Your task to perform on an android device: Open Google Maps and go to "Timeline" Image 0: 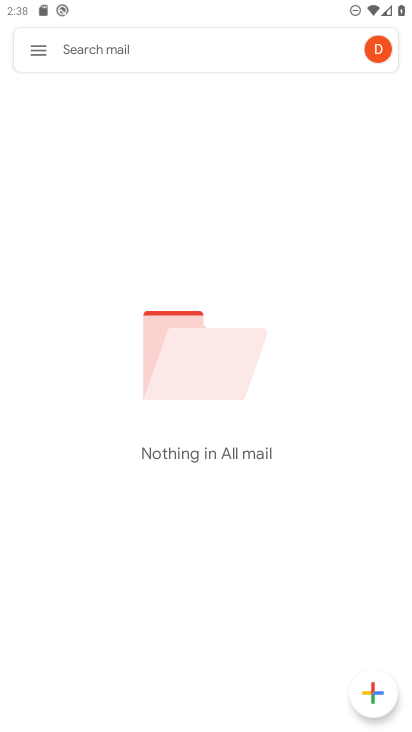
Step 0: press home button
Your task to perform on an android device: Open Google Maps and go to "Timeline" Image 1: 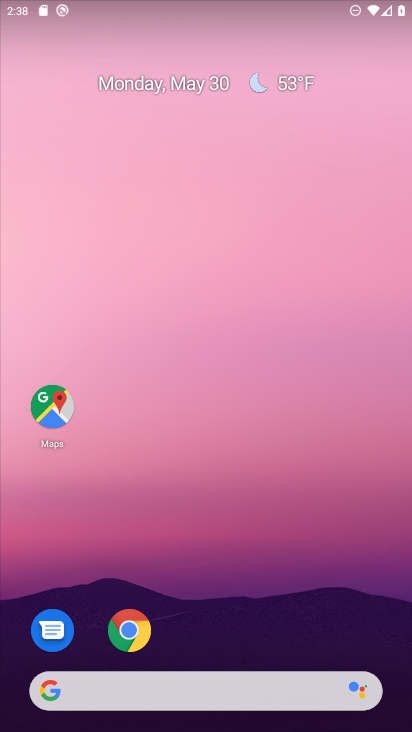
Step 1: click (50, 406)
Your task to perform on an android device: Open Google Maps and go to "Timeline" Image 2: 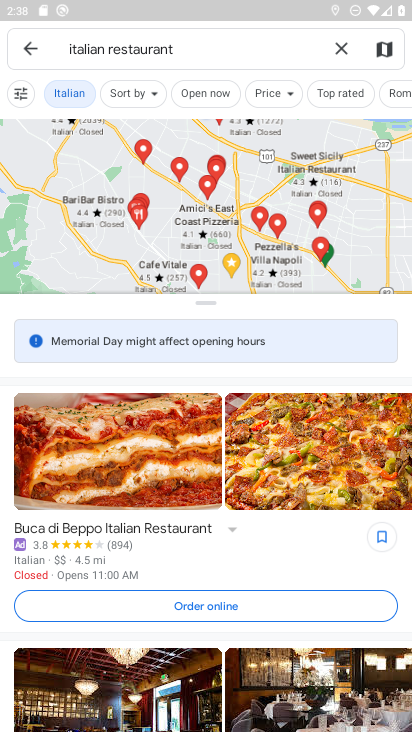
Step 2: click (25, 52)
Your task to perform on an android device: Open Google Maps and go to "Timeline" Image 3: 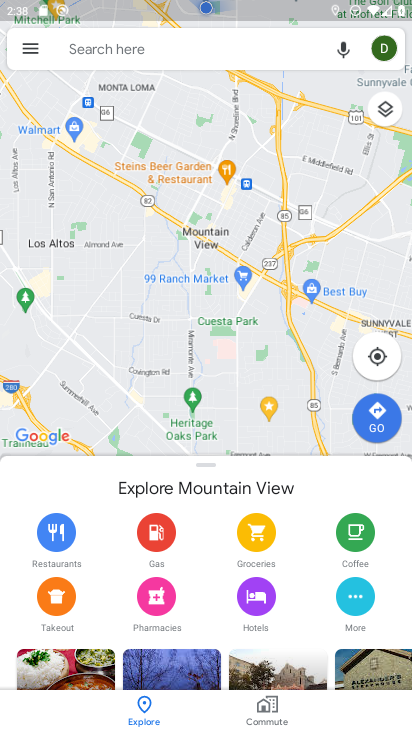
Step 3: click (25, 52)
Your task to perform on an android device: Open Google Maps and go to "Timeline" Image 4: 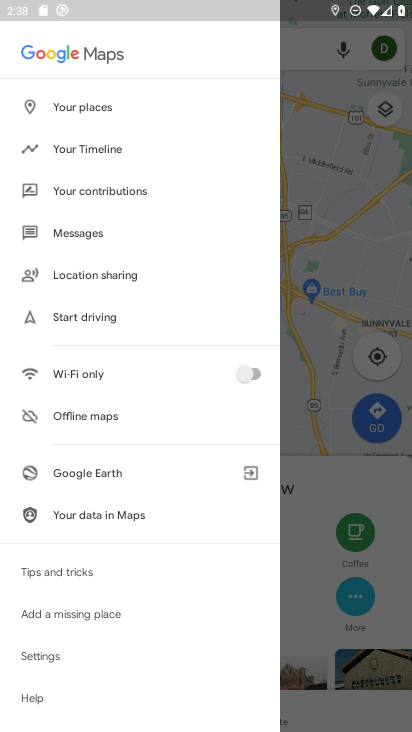
Step 4: click (100, 156)
Your task to perform on an android device: Open Google Maps and go to "Timeline" Image 5: 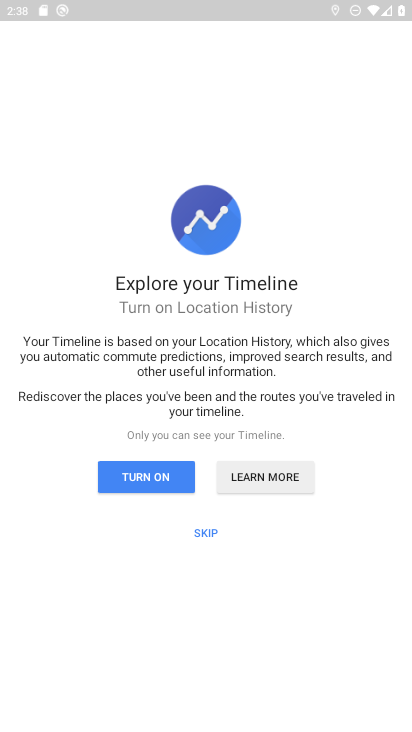
Step 5: click (164, 485)
Your task to perform on an android device: Open Google Maps and go to "Timeline" Image 6: 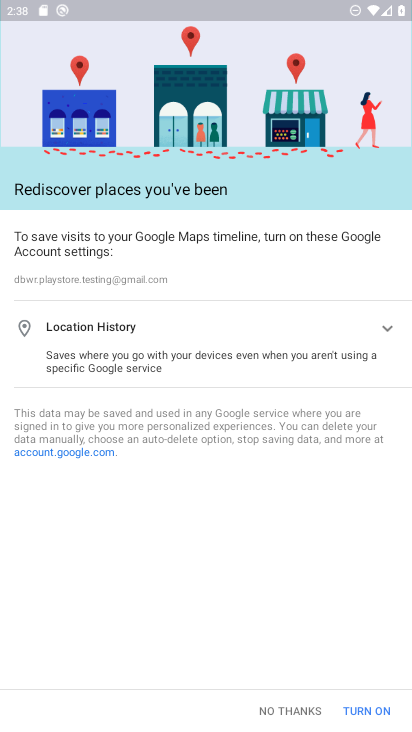
Step 6: click (374, 708)
Your task to perform on an android device: Open Google Maps and go to "Timeline" Image 7: 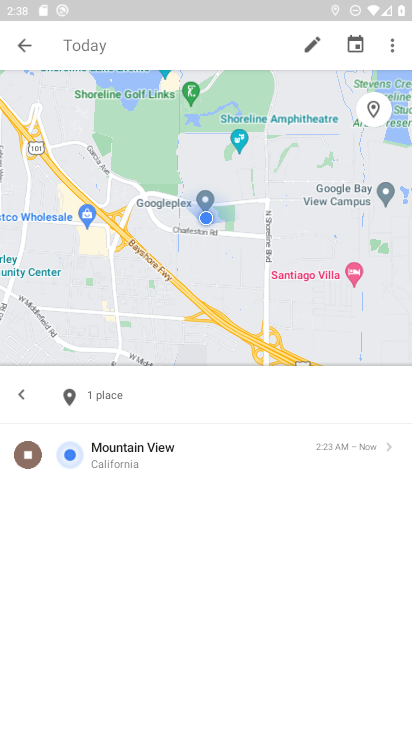
Step 7: task complete